Your task to perform on an android device: Clear all items from cart on walmart.com. Add macbook air to the cart on walmart.com Image 0: 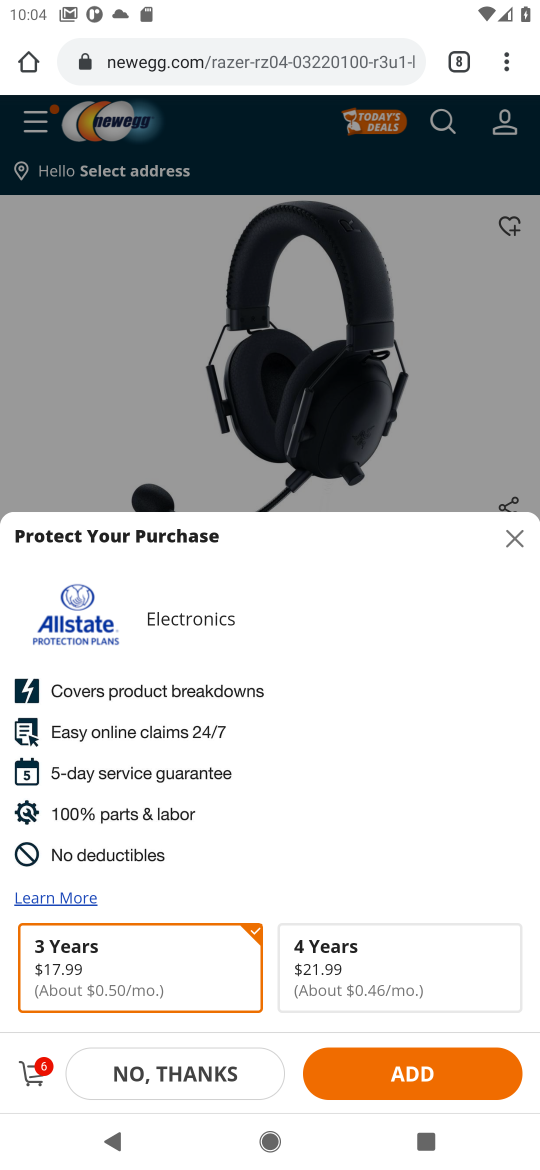
Step 0: click (463, 51)
Your task to perform on an android device: Clear all items from cart on walmart.com. Add macbook air to the cart on walmart.com Image 1: 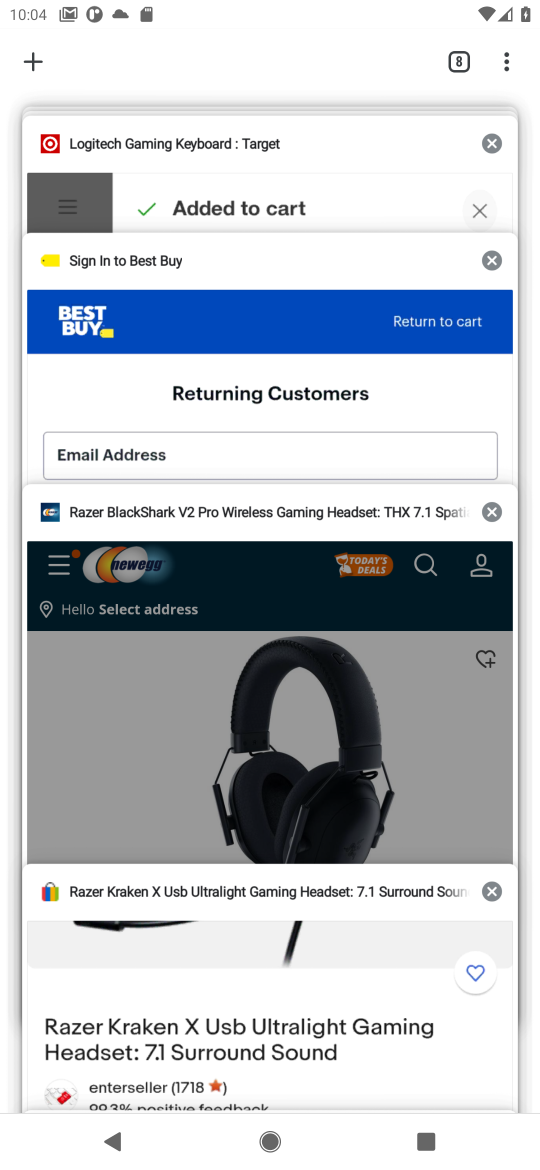
Step 1: drag from (276, 125) to (287, 384)
Your task to perform on an android device: Clear all items from cart on walmart.com. Add macbook air to the cart on walmart.com Image 2: 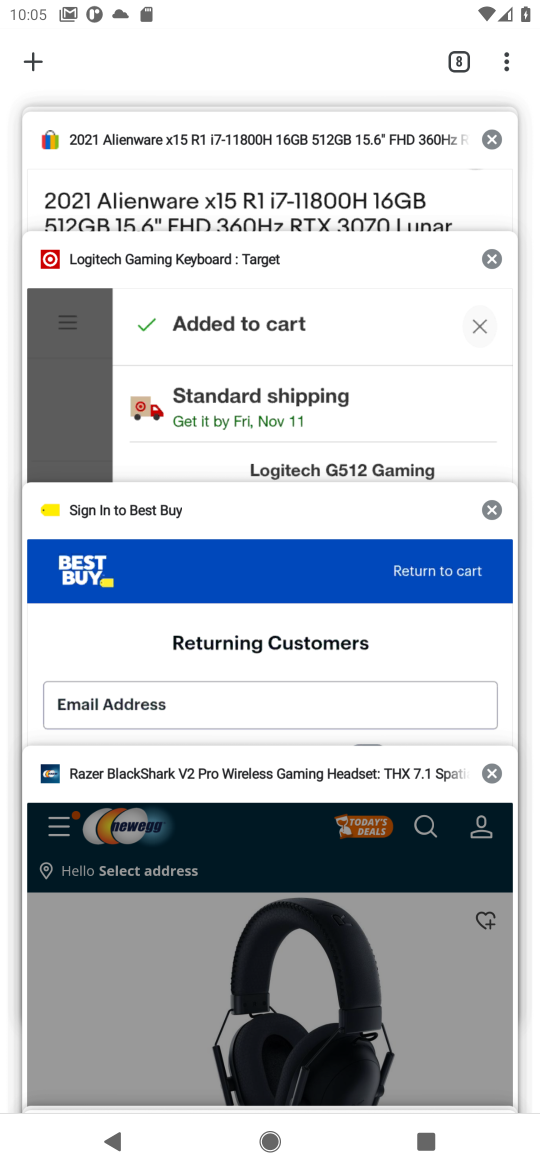
Step 2: drag from (335, 158) to (314, 310)
Your task to perform on an android device: Clear all items from cart on walmart.com. Add macbook air to the cart on walmart.com Image 3: 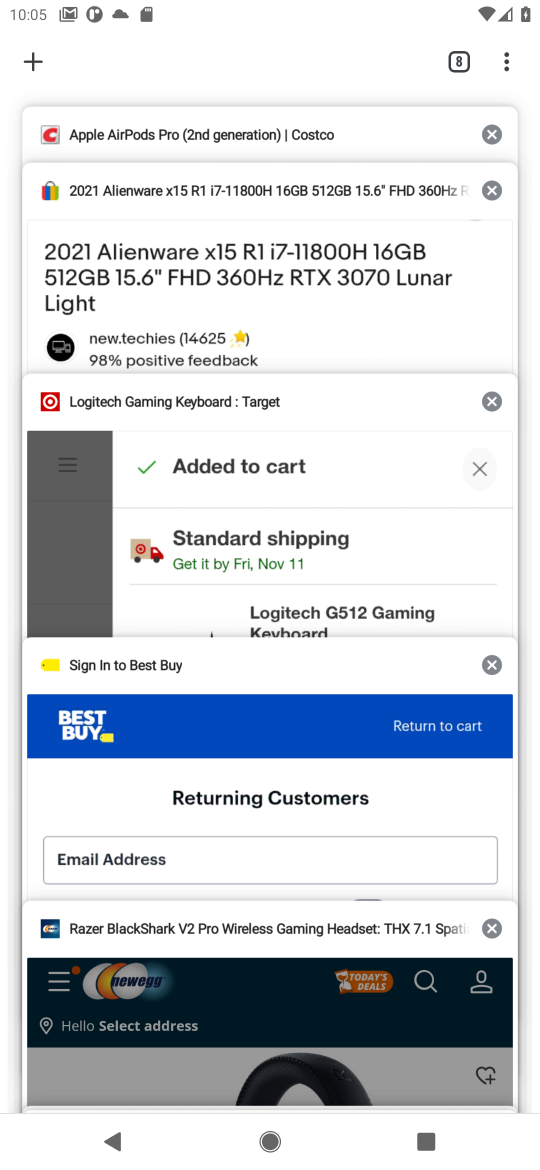
Step 3: drag from (215, 975) to (321, 652)
Your task to perform on an android device: Clear all items from cart on walmart.com. Add macbook air to the cart on walmart.com Image 4: 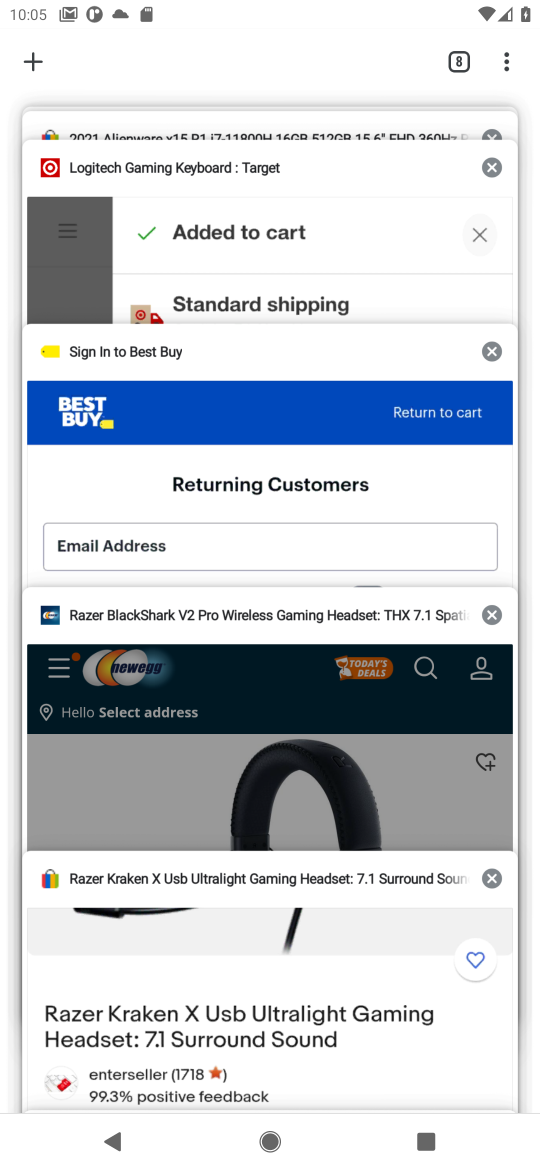
Step 4: drag from (302, 954) to (488, 297)
Your task to perform on an android device: Clear all items from cart on walmart.com. Add macbook air to the cart on walmart.com Image 5: 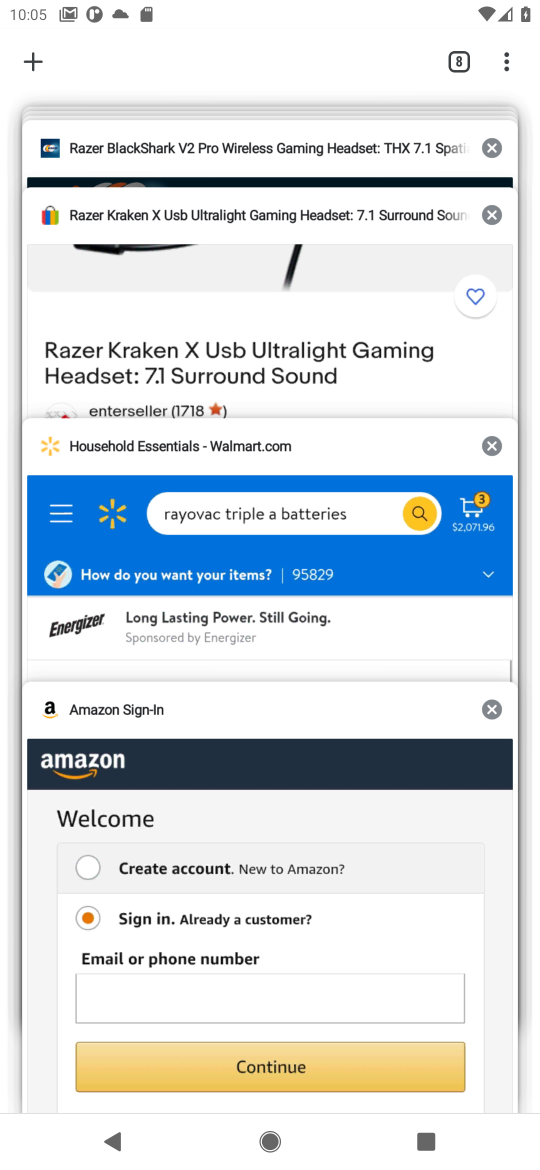
Step 5: click (334, 565)
Your task to perform on an android device: Clear all items from cart on walmart.com. Add macbook air to the cart on walmart.com Image 6: 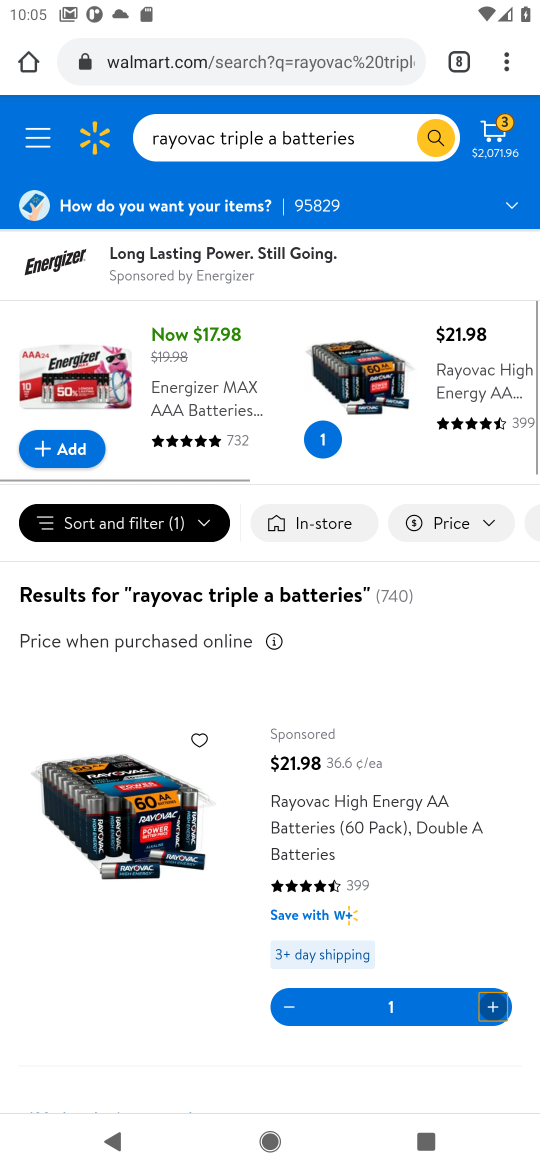
Step 6: click (505, 131)
Your task to perform on an android device: Clear all items from cart on walmart.com. Add macbook air to the cart on walmart.com Image 7: 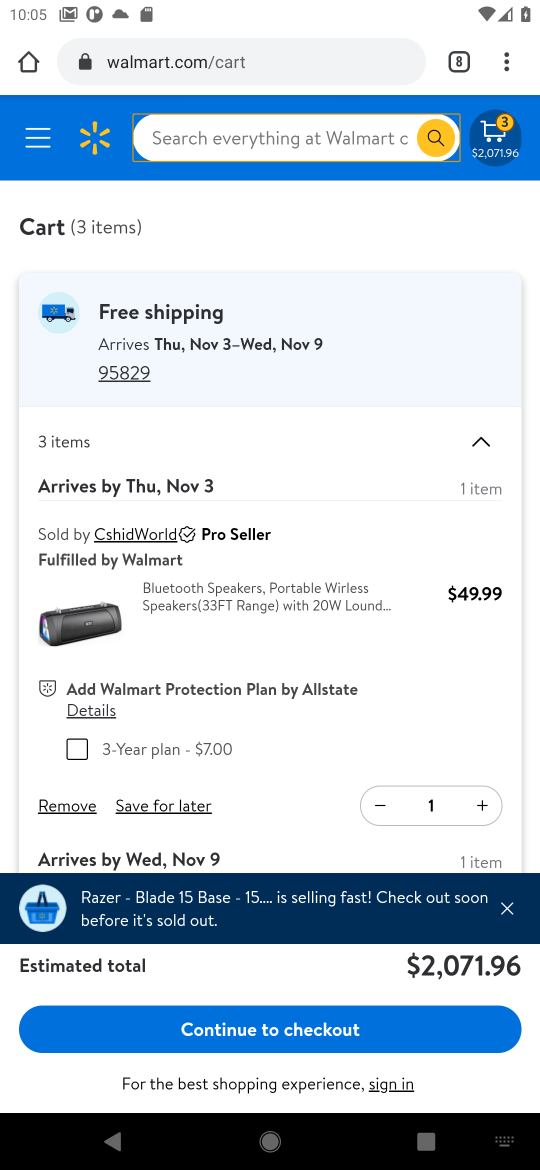
Step 7: click (62, 804)
Your task to perform on an android device: Clear all items from cart on walmart.com. Add macbook air to the cart on walmart.com Image 8: 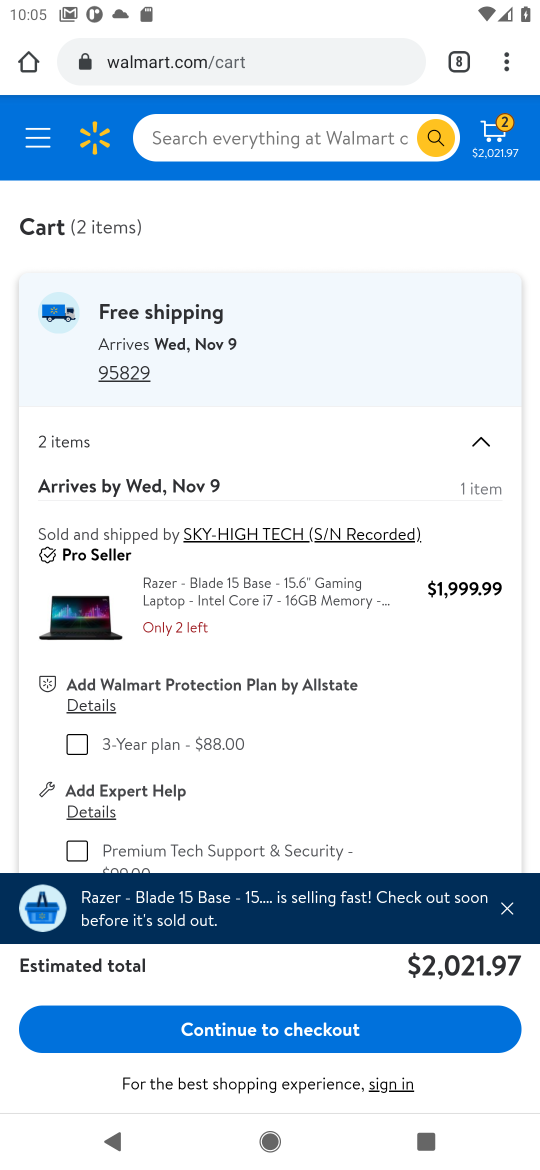
Step 8: drag from (205, 794) to (245, 473)
Your task to perform on an android device: Clear all items from cart on walmart.com. Add macbook air to the cart on walmart.com Image 9: 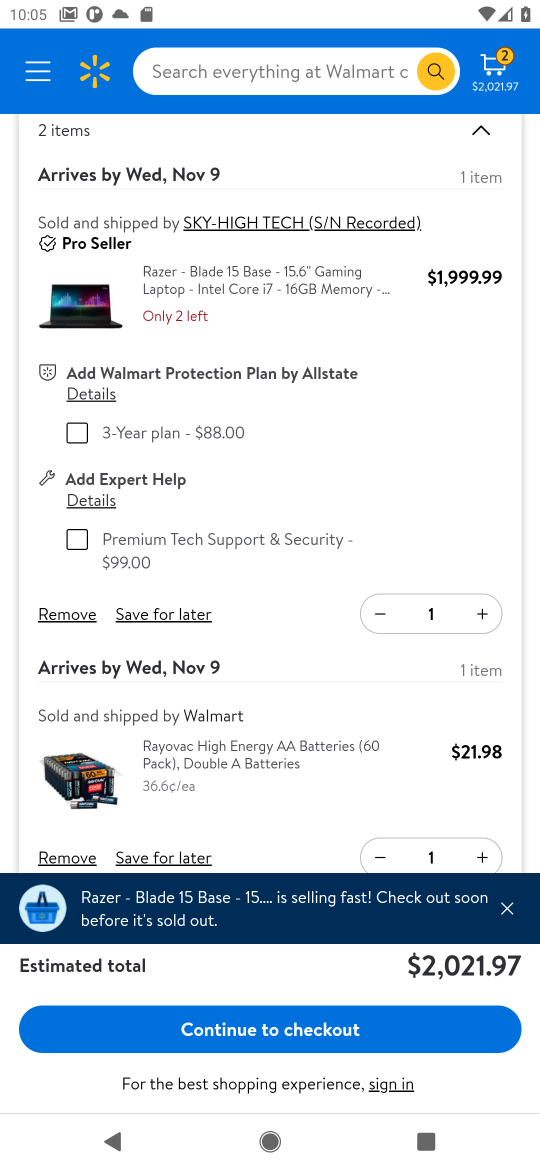
Step 9: click (48, 609)
Your task to perform on an android device: Clear all items from cart on walmart.com. Add macbook air to the cart on walmart.com Image 10: 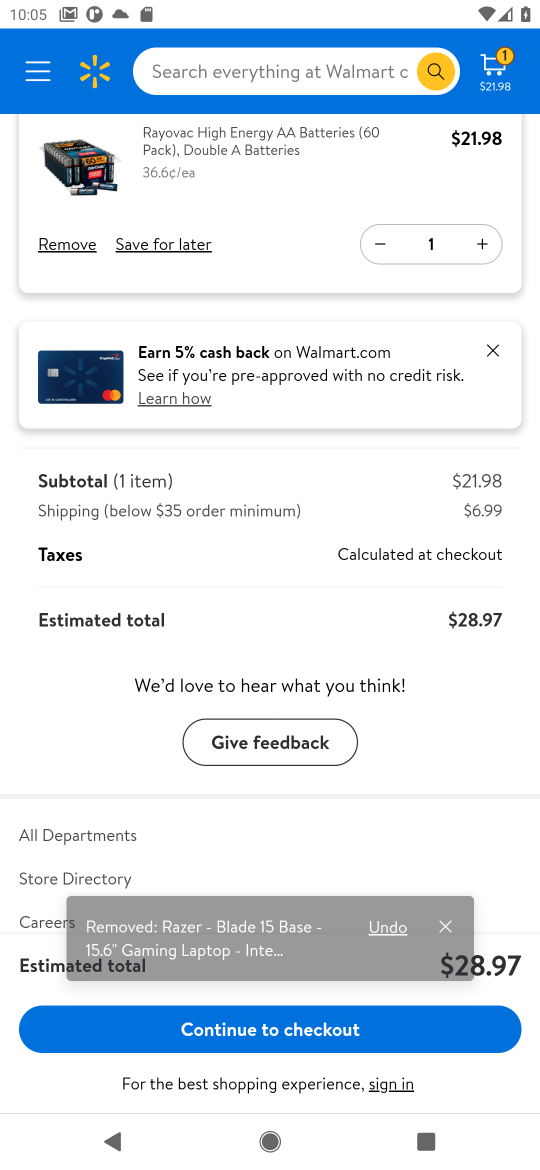
Step 10: click (74, 242)
Your task to perform on an android device: Clear all items from cart on walmart.com. Add macbook air to the cart on walmart.com Image 11: 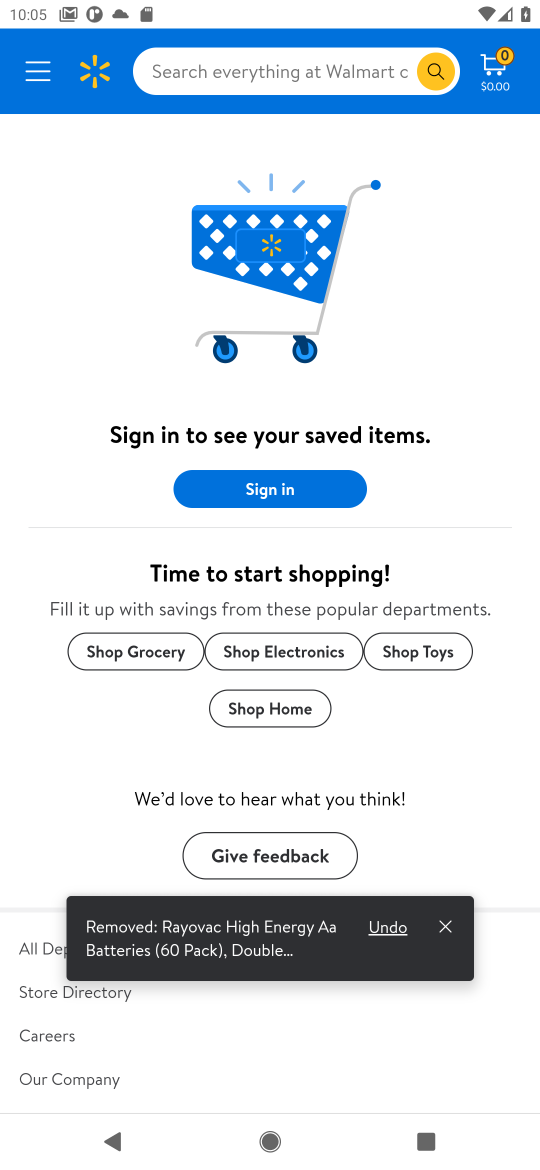
Step 11: click (294, 63)
Your task to perform on an android device: Clear all items from cart on walmart.com. Add macbook air to the cart on walmart.com Image 12: 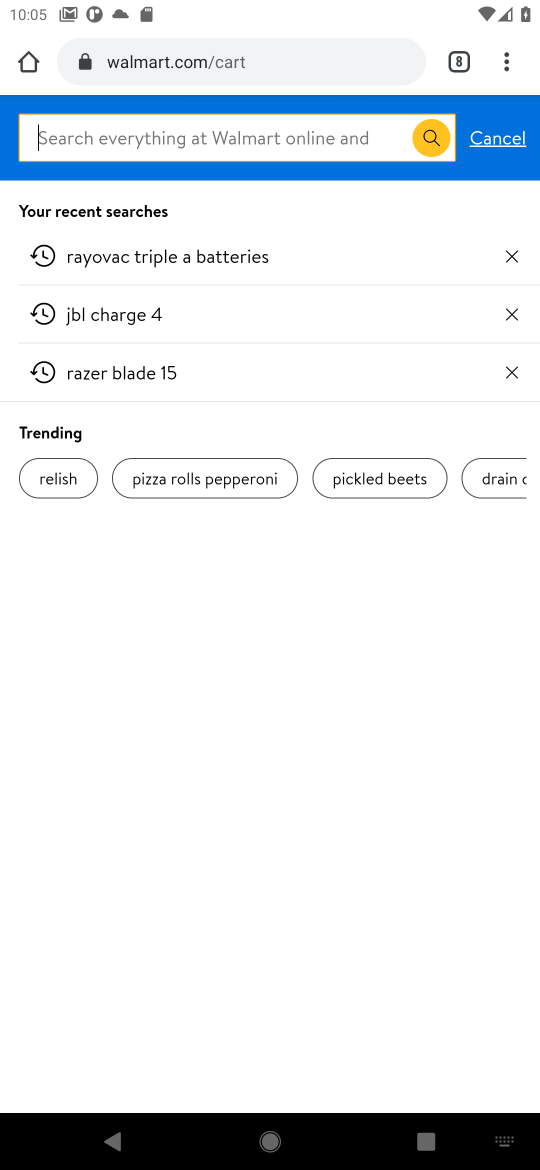
Step 12: type "macbook air"
Your task to perform on an android device: Clear all items from cart on walmart.com. Add macbook air to the cart on walmart.com Image 13: 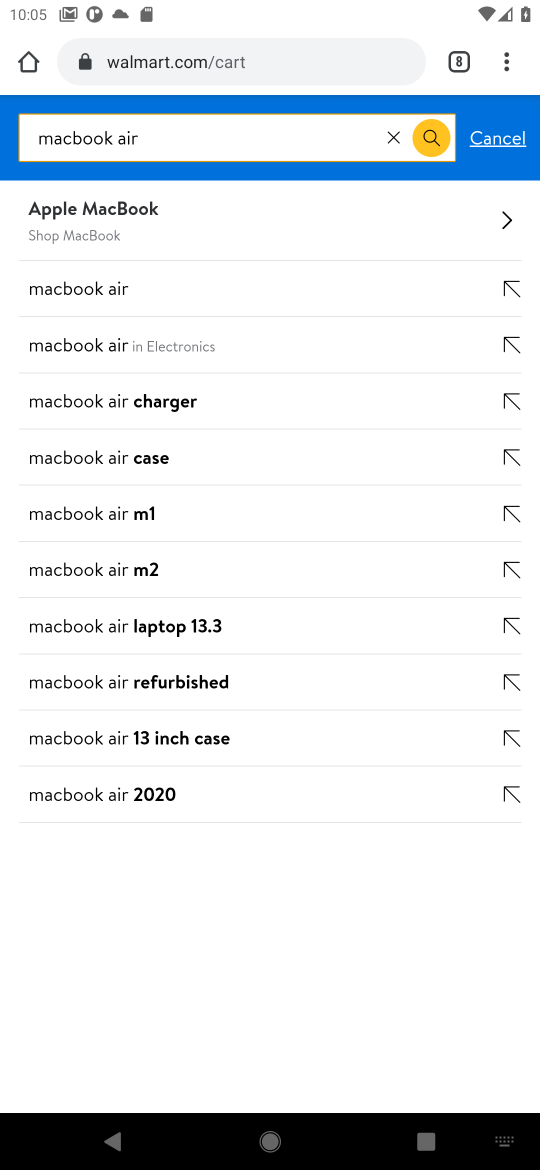
Step 13: click (85, 215)
Your task to perform on an android device: Clear all items from cart on walmart.com. Add macbook air to the cart on walmart.com Image 14: 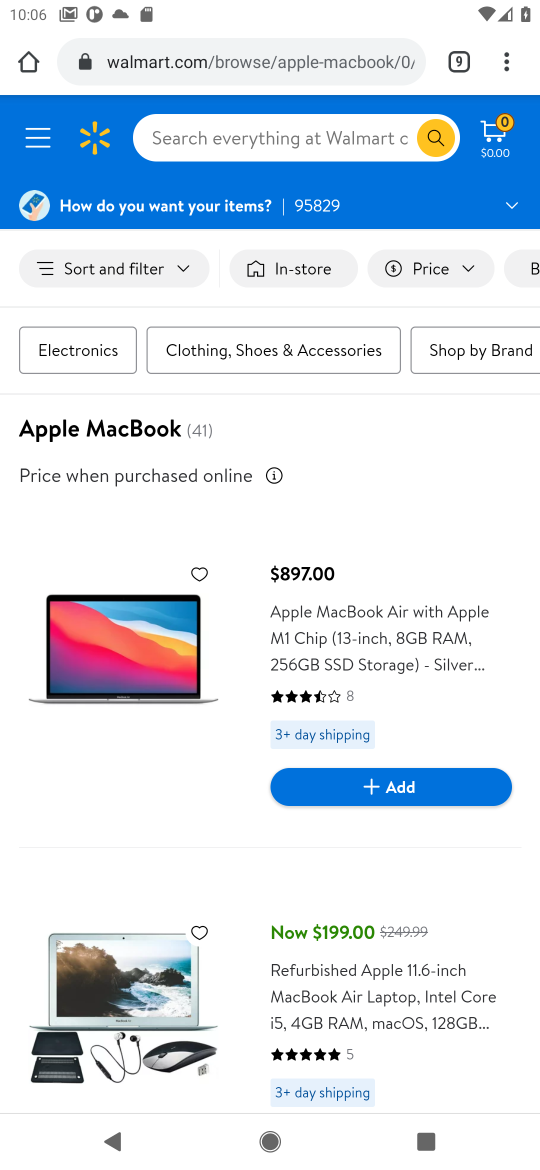
Step 14: click (384, 793)
Your task to perform on an android device: Clear all items from cart on walmart.com. Add macbook air to the cart on walmart.com Image 15: 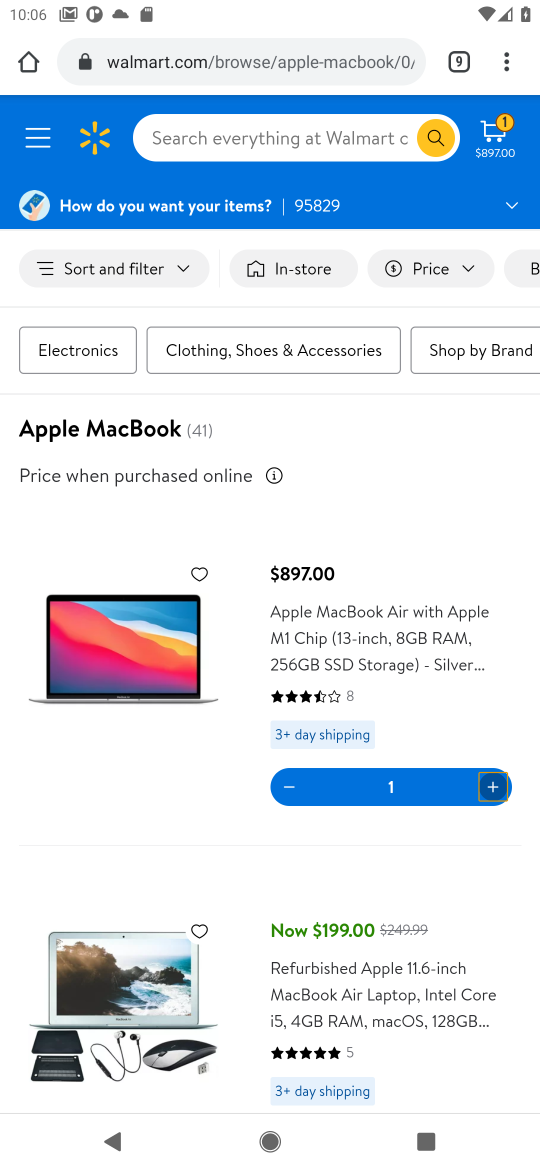
Step 15: task complete